Your task to perform on an android device: turn on airplane mode Image 0: 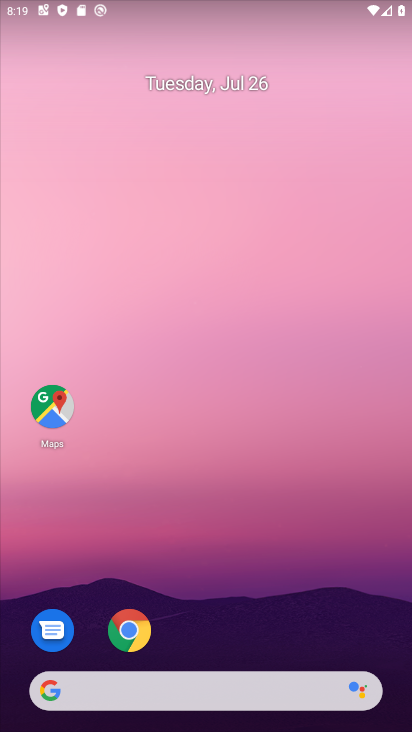
Step 0: drag from (203, 643) to (171, 8)
Your task to perform on an android device: turn on airplane mode Image 1: 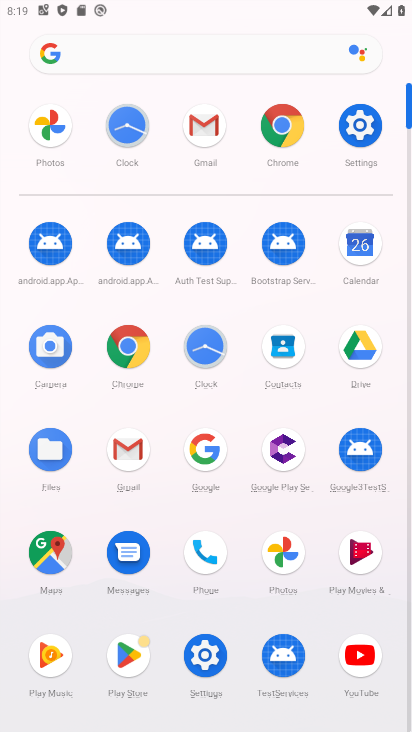
Step 1: click (364, 135)
Your task to perform on an android device: turn on airplane mode Image 2: 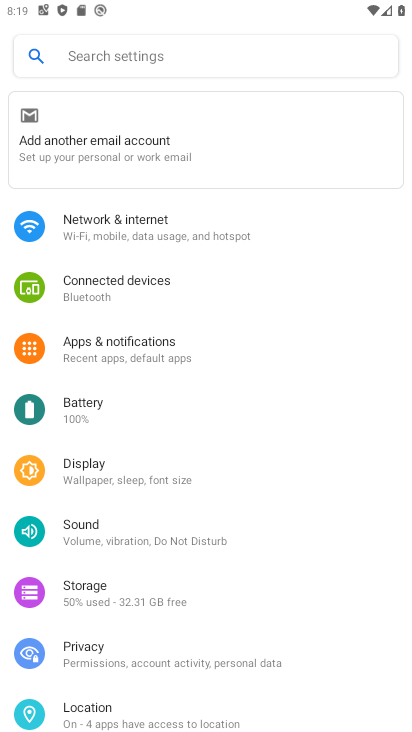
Step 2: click (241, 219)
Your task to perform on an android device: turn on airplane mode Image 3: 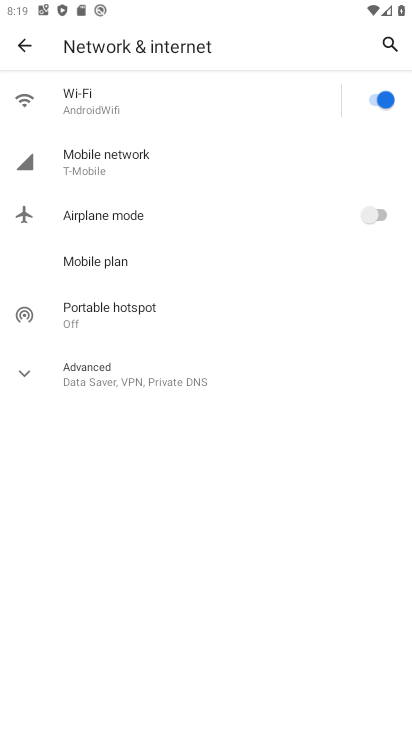
Step 3: click (358, 214)
Your task to perform on an android device: turn on airplane mode Image 4: 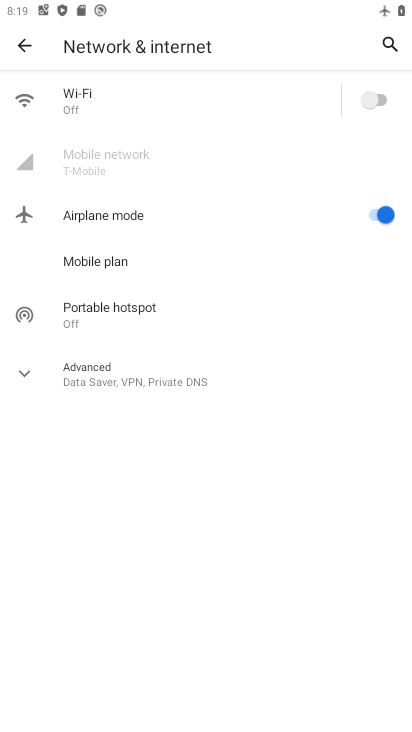
Step 4: task complete